Your task to perform on an android device: View the shopping cart on costco.com. Image 0: 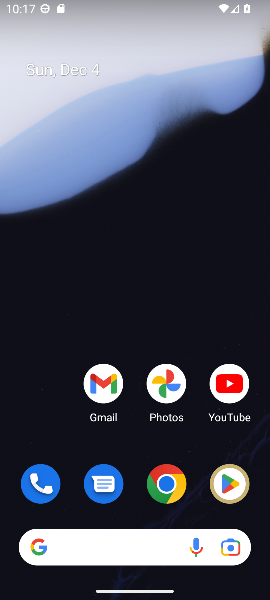
Step 0: click (161, 485)
Your task to perform on an android device: View the shopping cart on costco.com. Image 1: 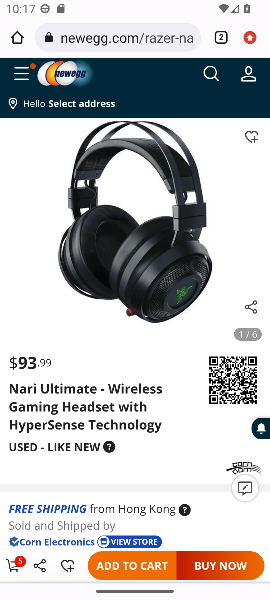
Step 1: click (76, 38)
Your task to perform on an android device: View the shopping cart on costco.com. Image 2: 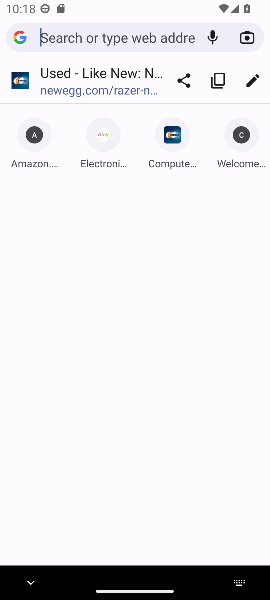
Step 2: type "costco.com"
Your task to perform on an android device: View the shopping cart on costco.com. Image 3: 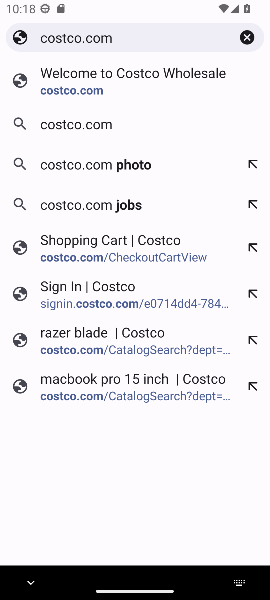
Step 3: click (65, 91)
Your task to perform on an android device: View the shopping cart on costco.com. Image 4: 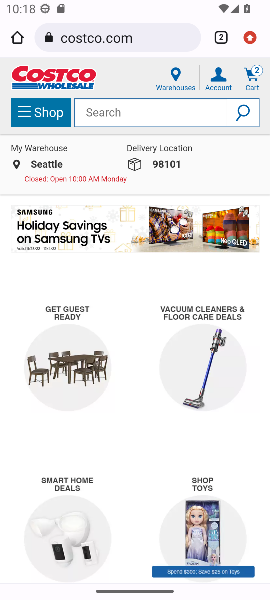
Step 4: click (252, 83)
Your task to perform on an android device: View the shopping cart on costco.com. Image 5: 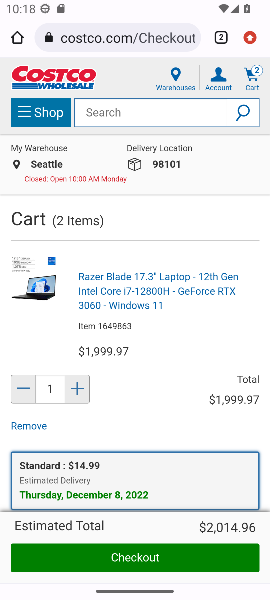
Step 5: task complete